Your task to perform on an android device: Open the Play Movies app and select the watchlist tab. Image 0: 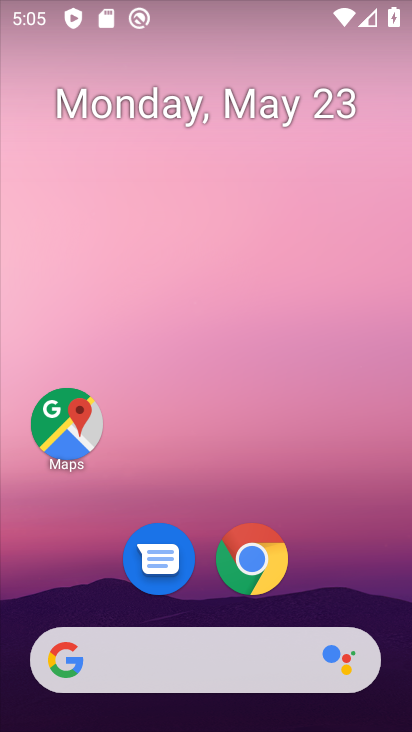
Step 0: drag from (277, 637) to (275, 10)
Your task to perform on an android device: Open the Play Movies app and select the watchlist tab. Image 1: 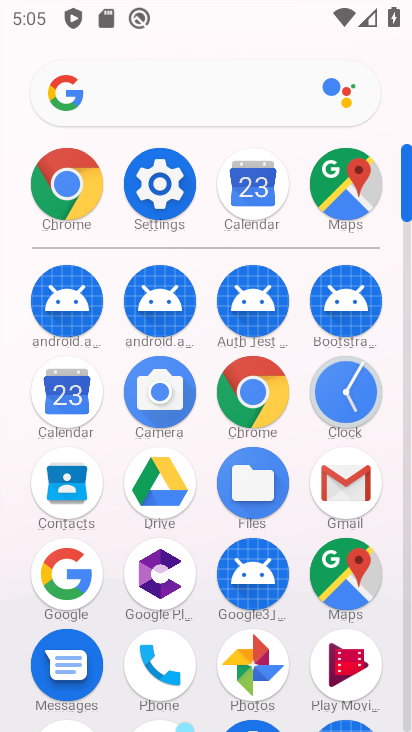
Step 1: drag from (290, 628) to (317, 407)
Your task to perform on an android device: Open the Play Movies app and select the watchlist tab. Image 2: 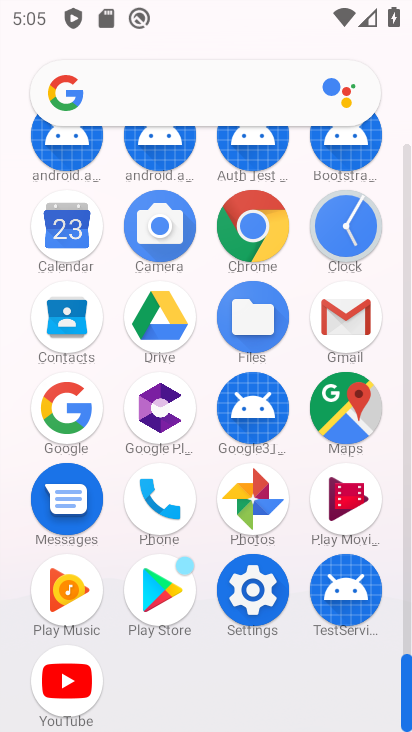
Step 2: click (350, 516)
Your task to perform on an android device: Open the Play Movies app and select the watchlist tab. Image 3: 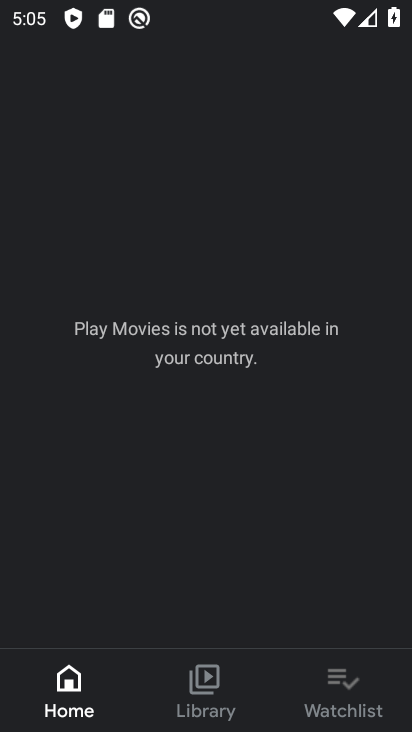
Step 3: drag from (333, 678) to (259, 678)
Your task to perform on an android device: Open the Play Movies app and select the watchlist tab. Image 4: 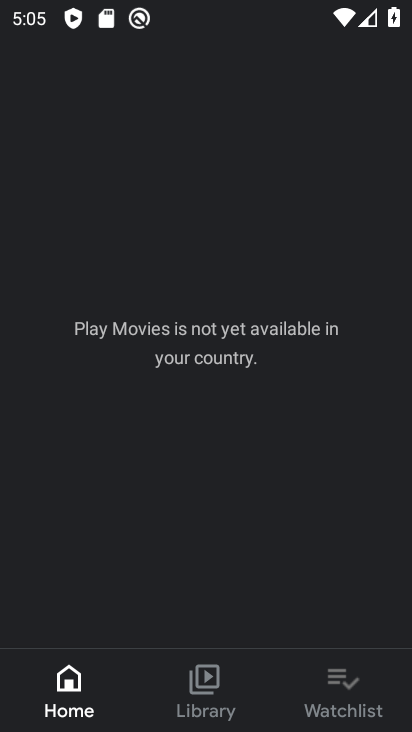
Step 4: click (336, 696)
Your task to perform on an android device: Open the Play Movies app and select the watchlist tab. Image 5: 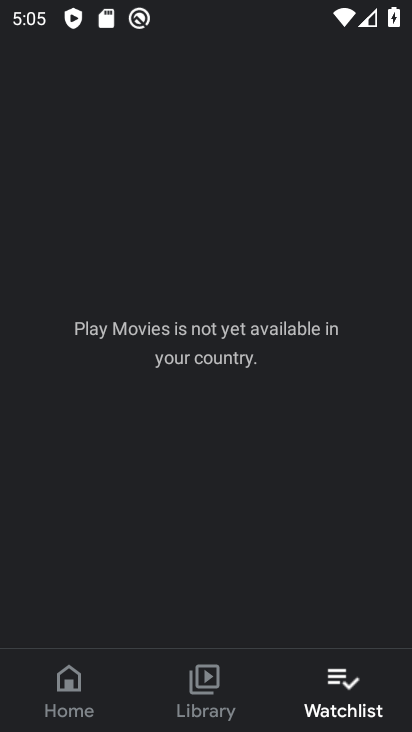
Step 5: task complete